Your task to perform on an android device: toggle data saver in the chrome app Image 0: 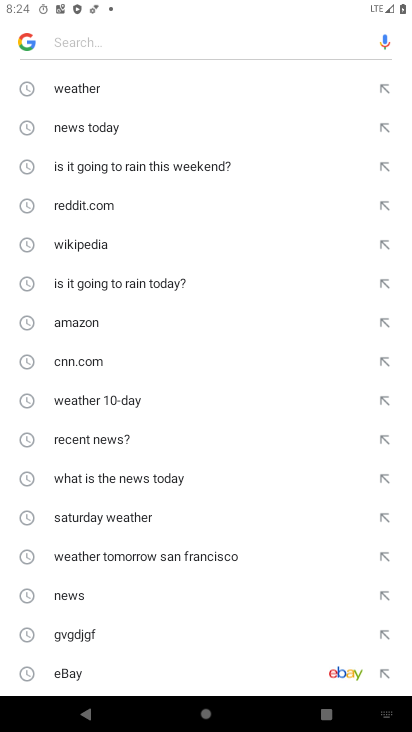
Step 0: press home button
Your task to perform on an android device: toggle data saver in the chrome app Image 1: 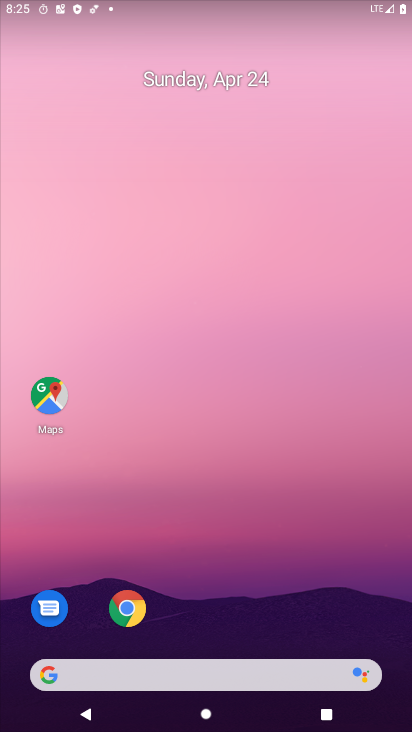
Step 1: click (137, 608)
Your task to perform on an android device: toggle data saver in the chrome app Image 2: 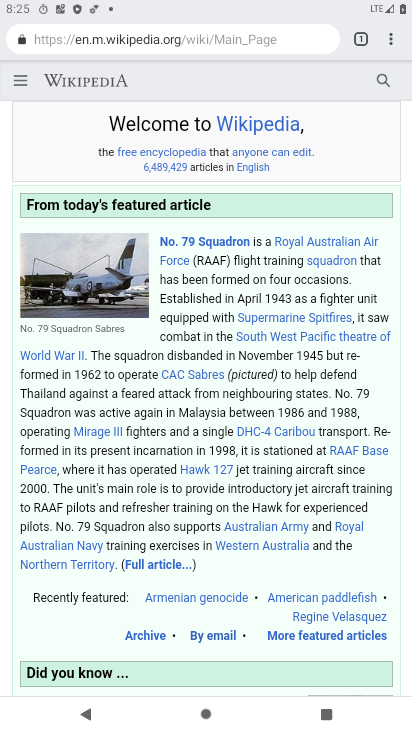
Step 2: click (396, 34)
Your task to perform on an android device: toggle data saver in the chrome app Image 3: 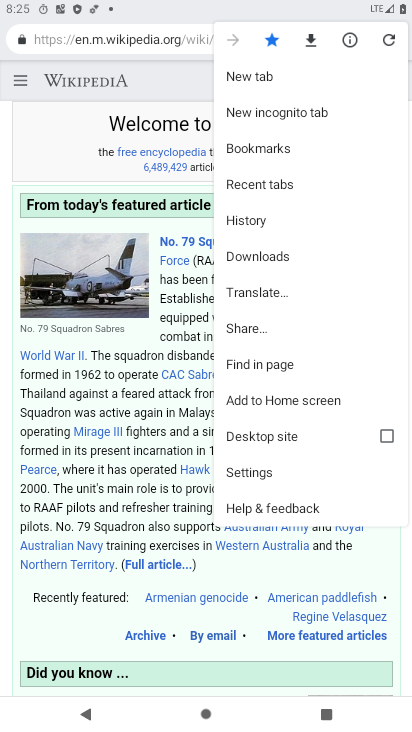
Step 3: click (278, 467)
Your task to perform on an android device: toggle data saver in the chrome app Image 4: 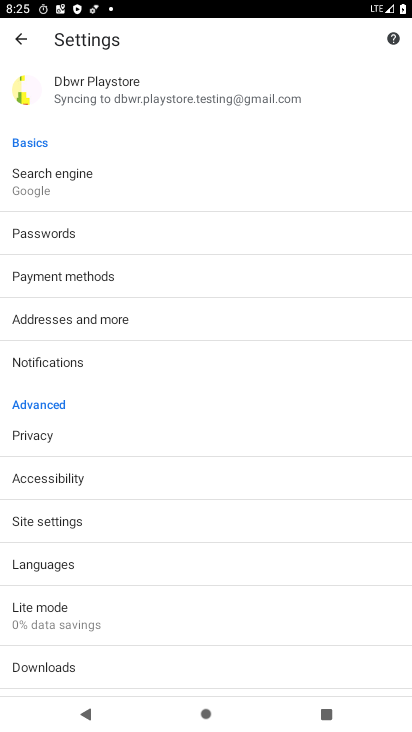
Step 4: click (194, 615)
Your task to perform on an android device: toggle data saver in the chrome app Image 5: 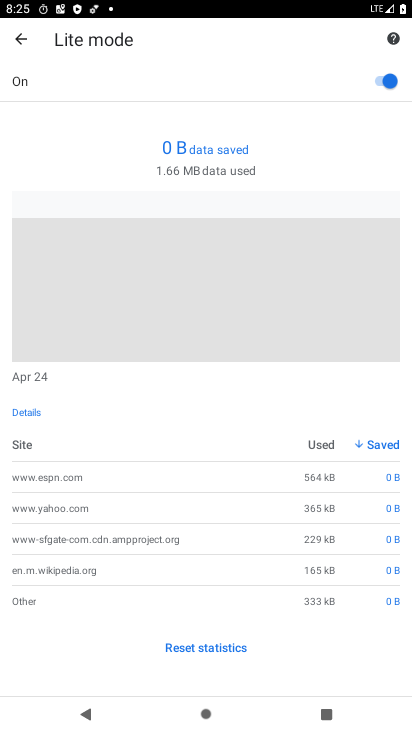
Step 5: click (379, 67)
Your task to perform on an android device: toggle data saver in the chrome app Image 6: 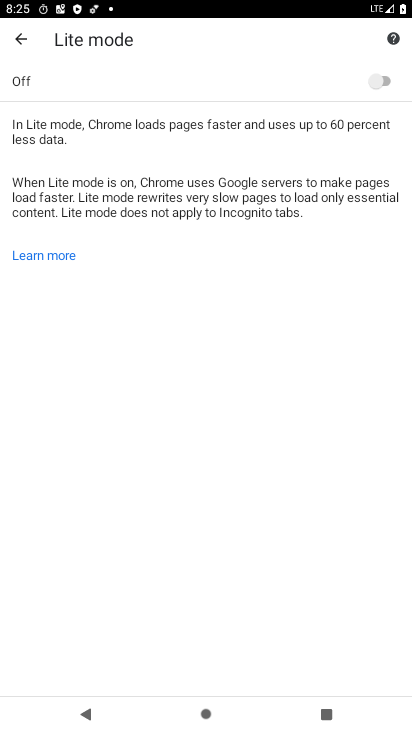
Step 6: task complete